Your task to perform on an android device: turn off improve location accuracy Image 0: 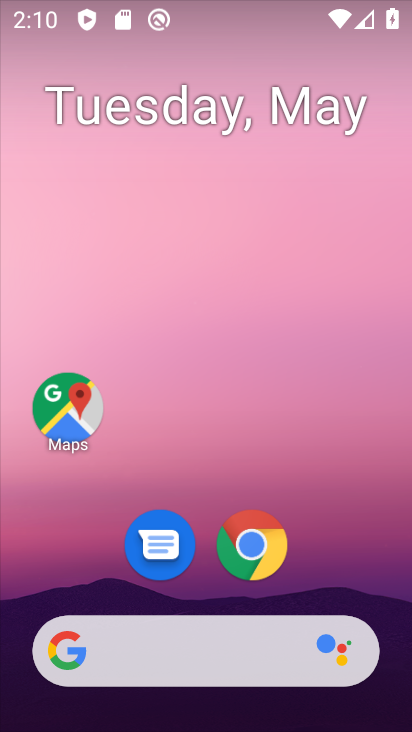
Step 0: drag from (202, 559) to (259, 89)
Your task to perform on an android device: turn off improve location accuracy Image 1: 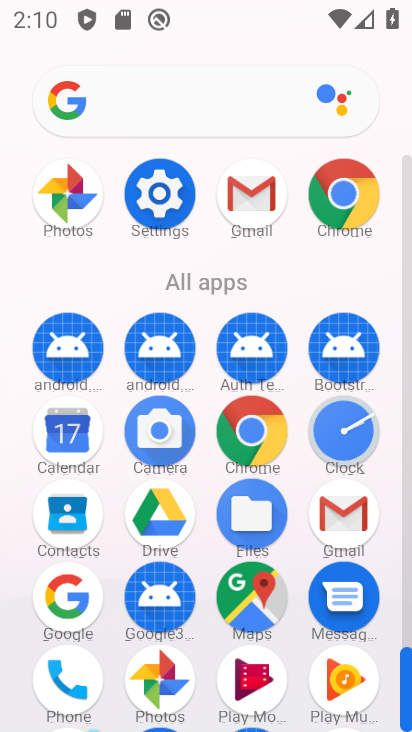
Step 1: click (162, 192)
Your task to perform on an android device: turn off improve location accuracy Image 2: 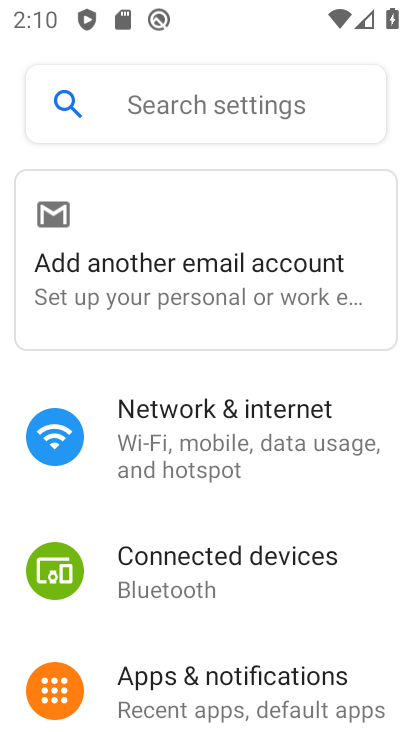
Step 2: drag from (216, 683) to (274, 236)
Your task to perform on an android device: turn off improve location accuracy Image 3: 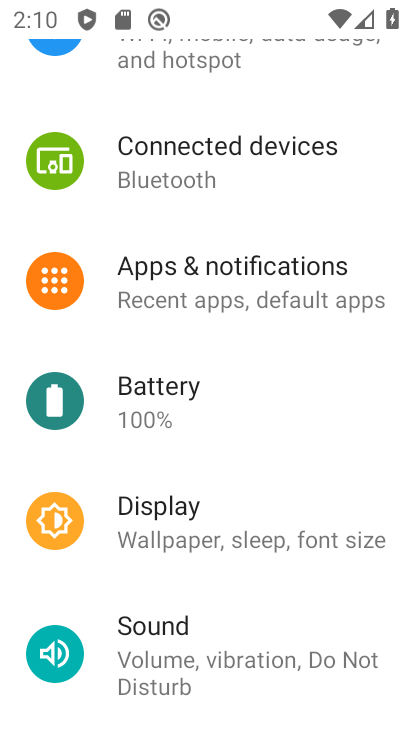
Step 3: drag from (212, 703) to (274, 246)
Your task to perform on an android device: turn off improve location accuracy Image 4: 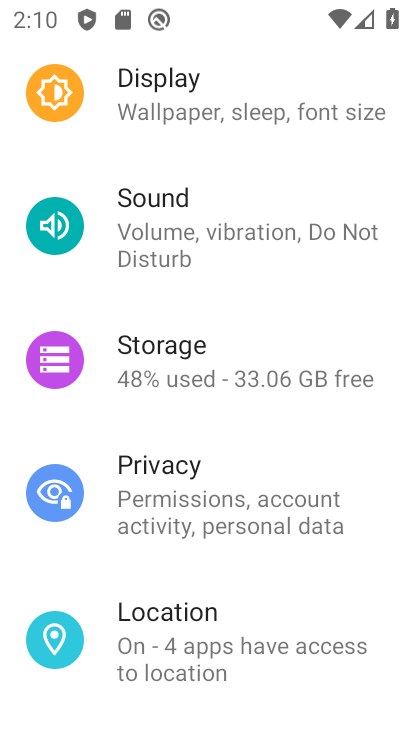
Step 4: click (231, 629)
Your task to perform on an android device: turn off improve location accuracy Image 5: 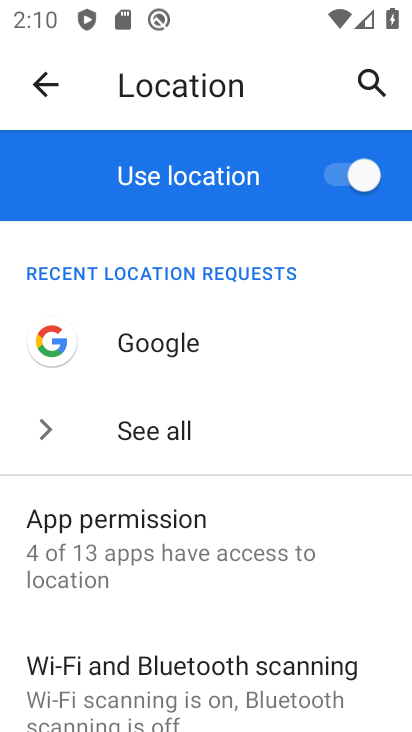
Step 5: drag from (228, 670) to (275, 265)
Your task to perform on an android device: turn off improve location accuracy Image 6: 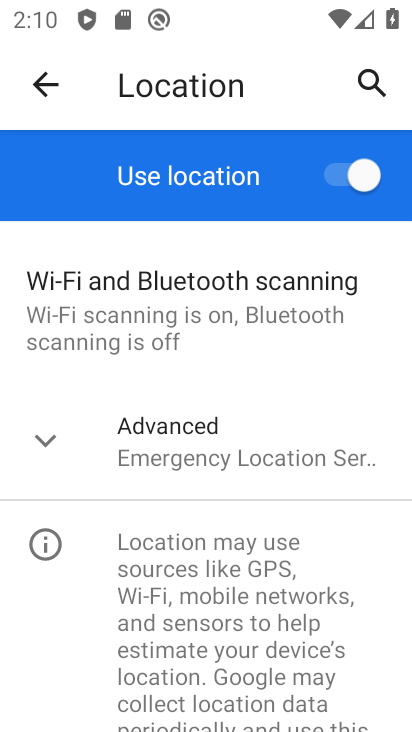
Step 6: click (165, 472)
Your task to perform on an android device: turn off improve location accuracy Image 7: 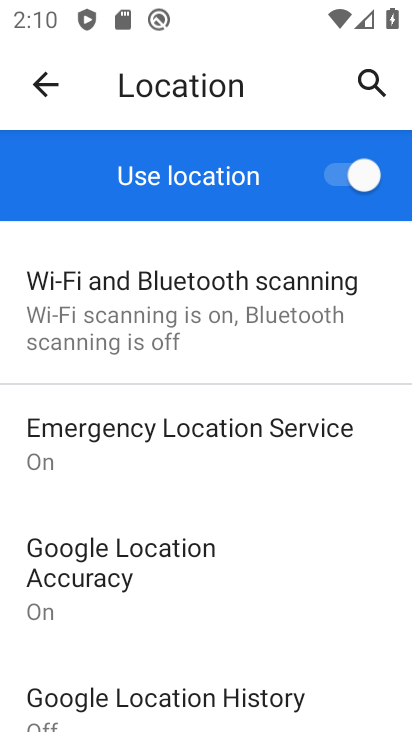
Step 7: drag from (204, 600) to (212, 505)
Your task to perform on an android device: turn off improve location accuracy Image 8: 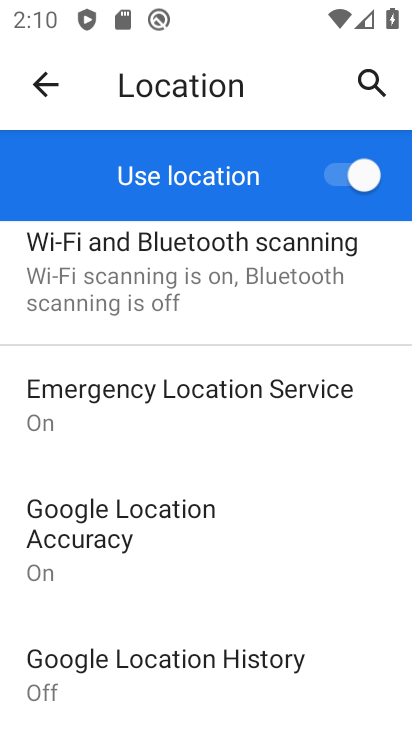
Step 8: click (212, 505)
Your task to perform on an android device: turn off improve location accuracy Image 9: 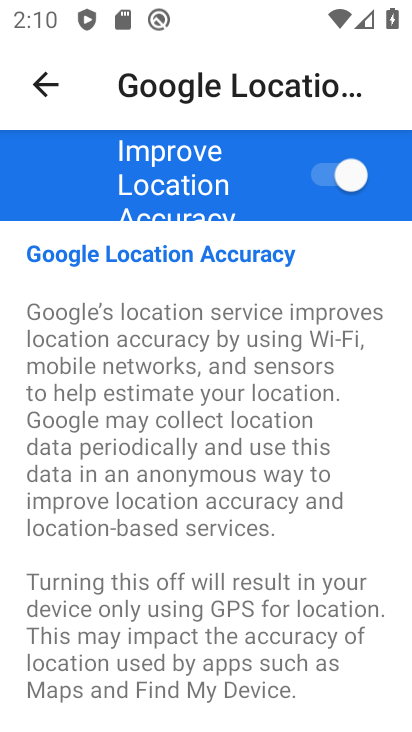
Step 9: click (347, 171)
Your task to perform on an android device: turn off improve location accuracy Image 10: 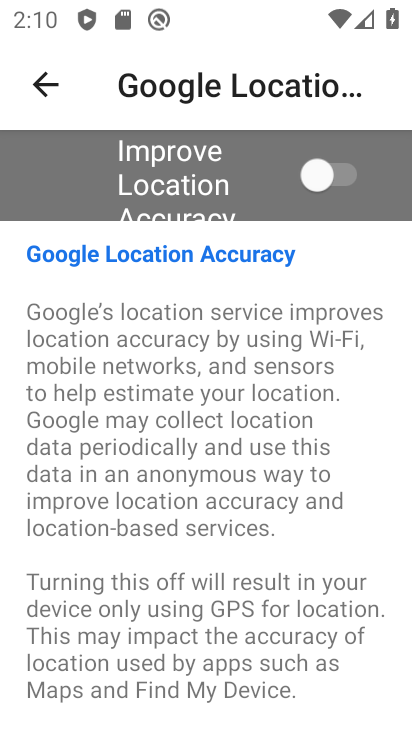
Step 10: task complete